Your task to perform on an android device: When is my next meeting? Image 0: 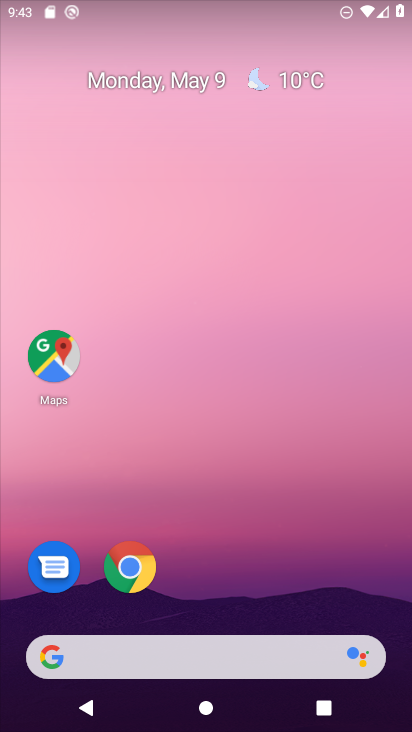
Step 0: drag from (258, 534) to (229, 54)
Your task to perform on an android device: When is my next meeting? Image 1: 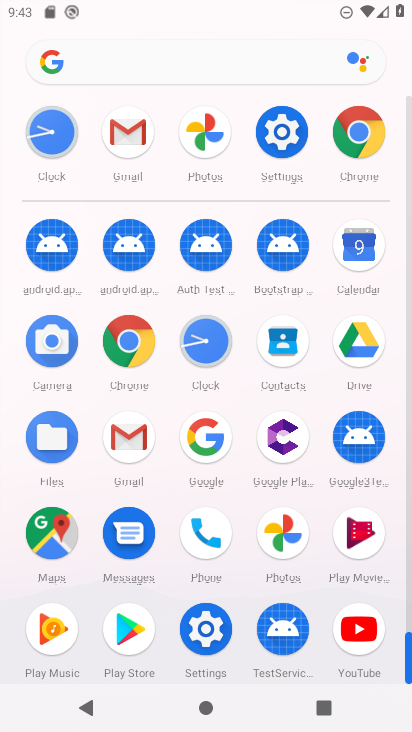
Step 1: click (353, 243)
Your task to perform on an android device: When is my next meeting? Image 2: 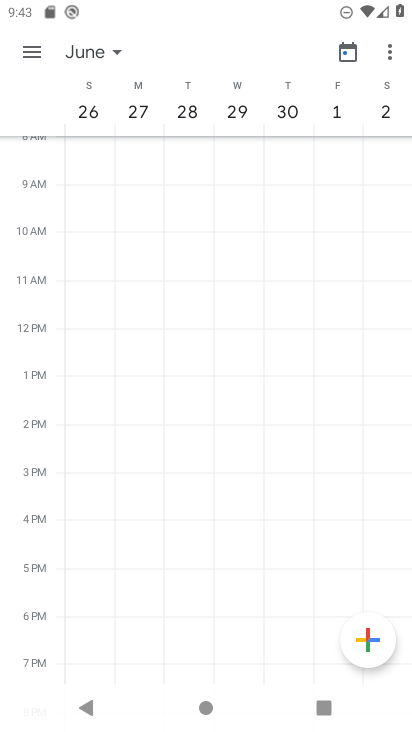
Step 2: drag from (88, 235) to (411, 244)
Your task to perform on an android device: When is my next meeting? Image 3: 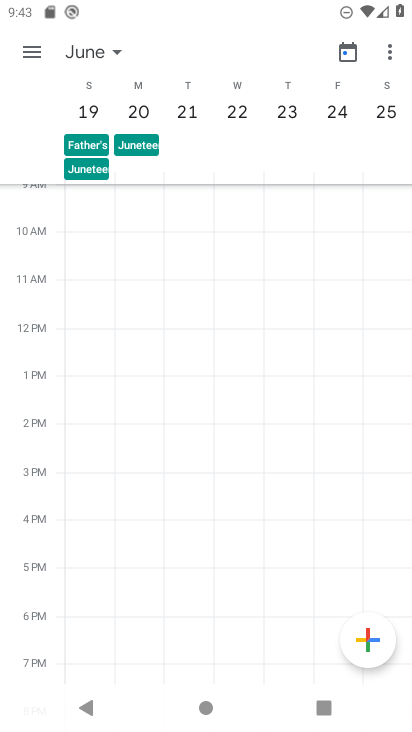
Step 3: drag from (75, 420) to (407, 486)
Your task to perform on an android device: When is my next meeting? Image 4: 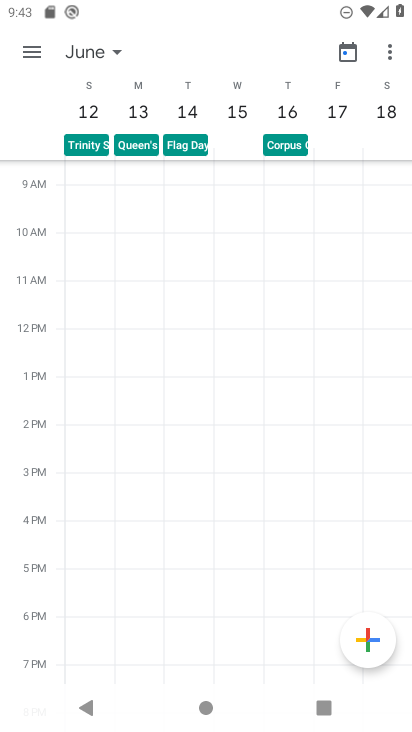
Step 4: drag from (99, 502) to (409, 529)
Your task to perform on an android device: When is my next meeting? Image 5: 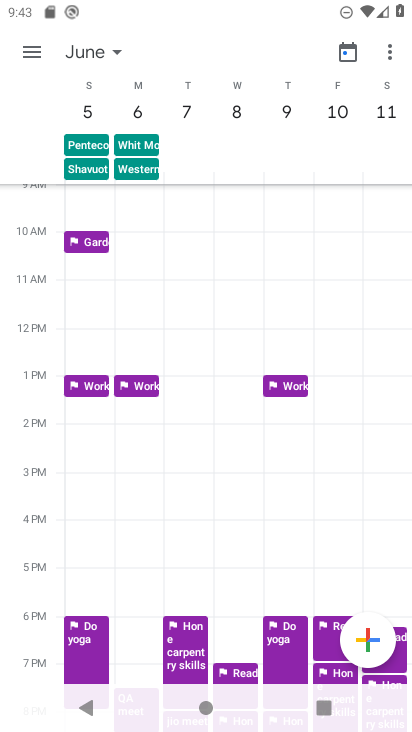
Step 5: drag from (106, 465) to (389, 468)
Your task to perform on an android device: When is my next meeting? Image 6: 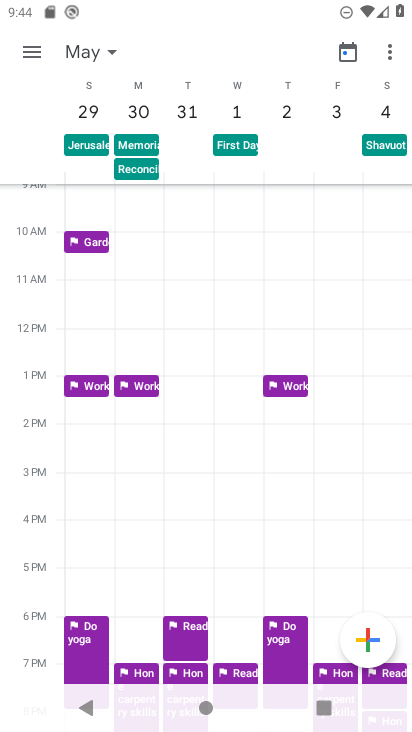
Step 6: drag from (85, 448) to (397, 439)
Your task to perform on an android device: When is my next meeting? Image 7: 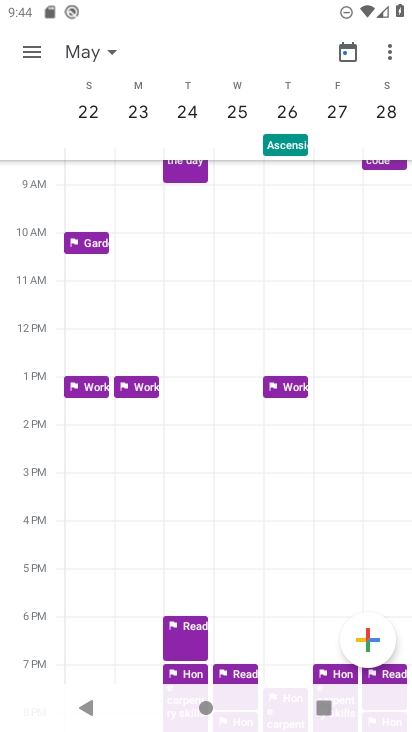
Step 7: drag from (83, 471) to (407, 452)
Your task to perform on an android device: When is my next meeting? Image 8: 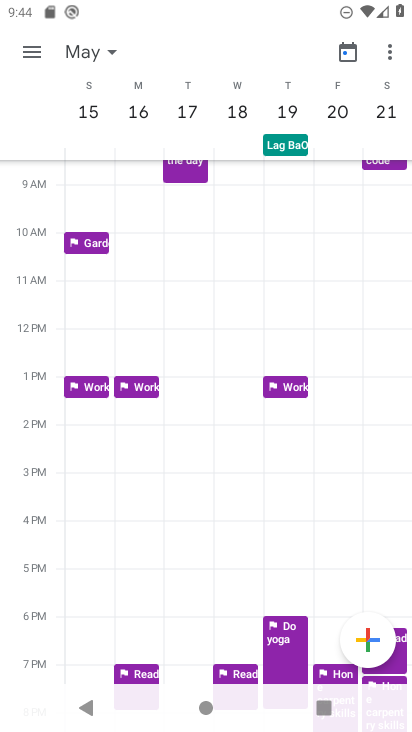
Step 8: drag from (74, 455) to (404, 481)
Your task to perform on an android device: When is my next meeting? Image 9: 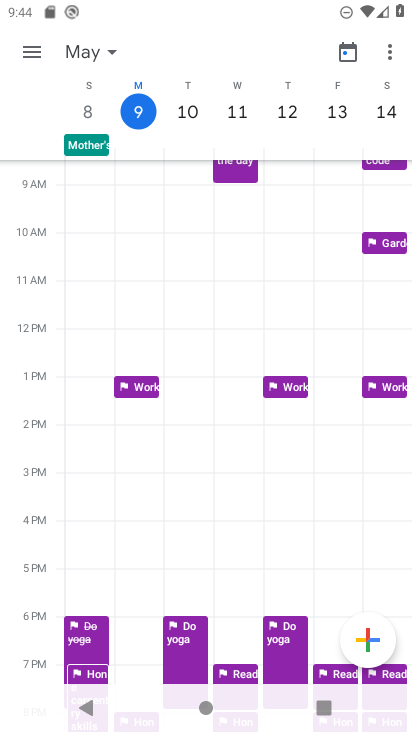
Step 9: click (133, 106)
Your task to perform on an android device: When is my next meeting? Image 10: 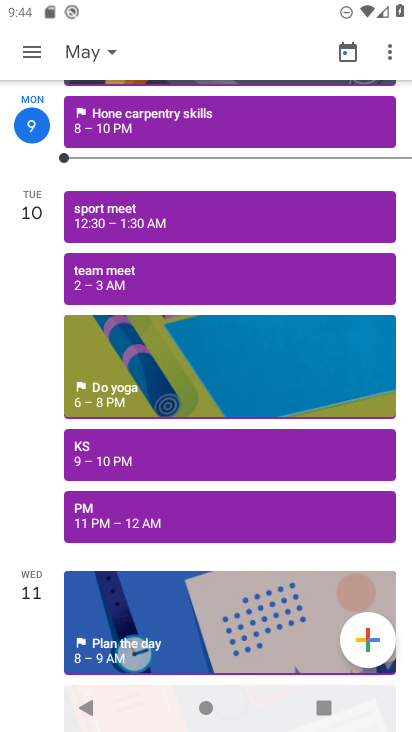
Step 10: task complete